Your task to perform on an android device: Play the last video I watched on Youtube Image 0: 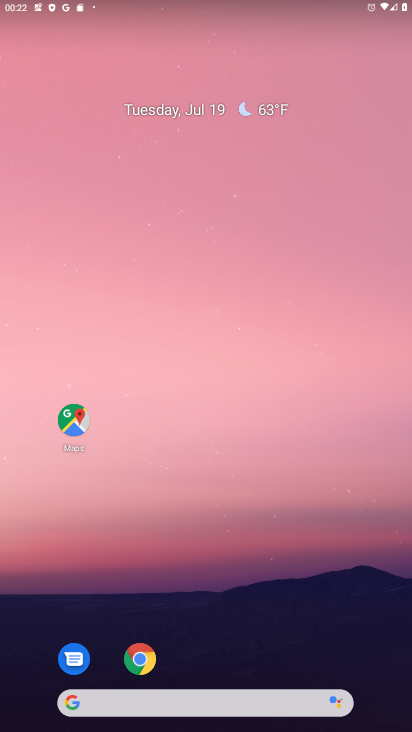
Step 0: press home button
Your task to perform on an android device: Play the last video I watched on Youtube Image 1: 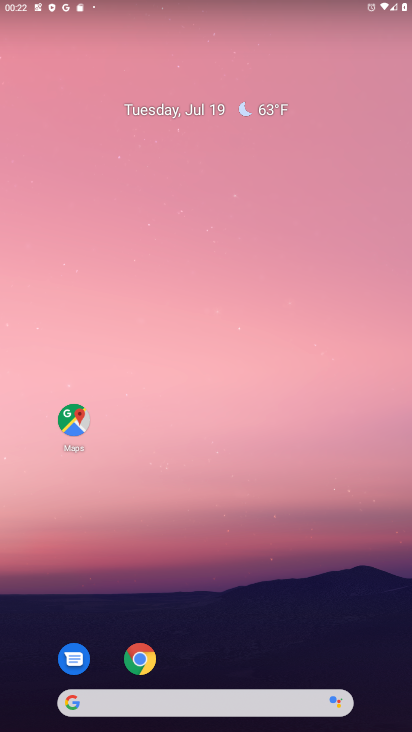
Step 1: drag from (328, 624) to (305, 1)
Your task to perform on an android device: Play the last video I watched on Youtube Image 2: 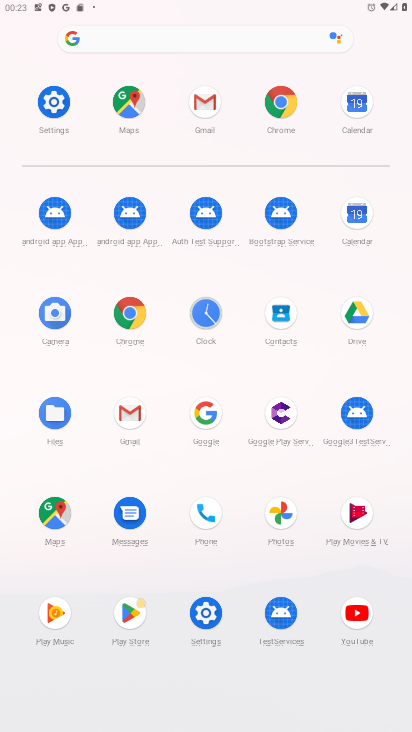
Step 2: click (341, 613)
Your task to perform on an android device: Play the last video I watched on Youtube Image 3: 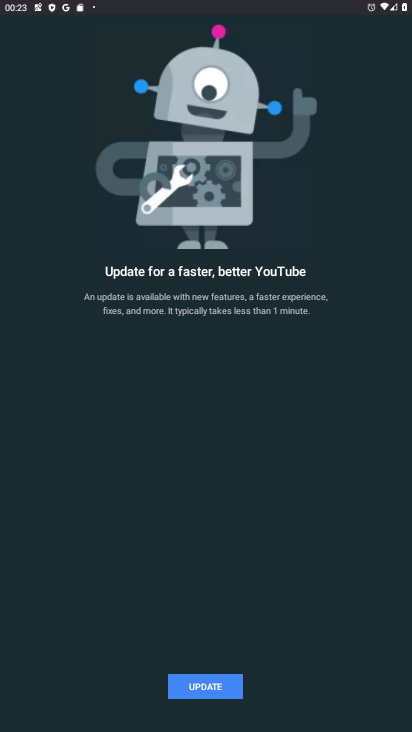
Step 3: click (223, 688)
Your task to perform on an android device: Play the last video I watched on Youtube Image 4: 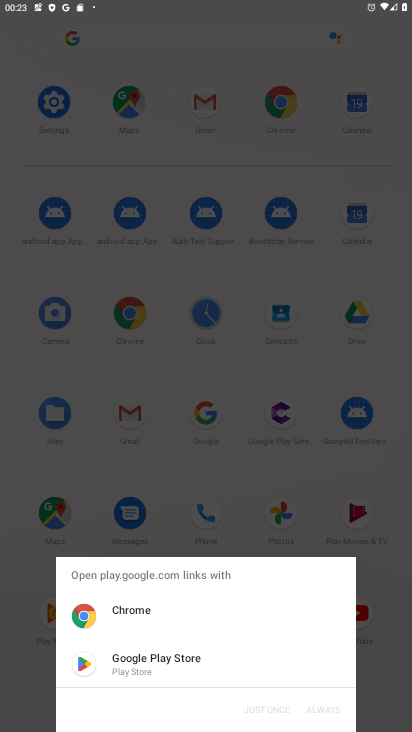
Step 4: click (196, 666)
Your task to perform on an android device: Play the last video I watched on Youtube Image 5: 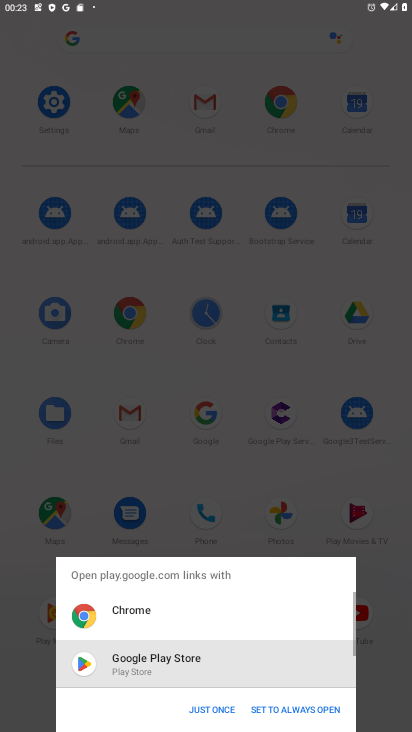
Step 5: click (217, 701)
Your task to perform on an android device: Play the last video I watched on Youtube Image 6: 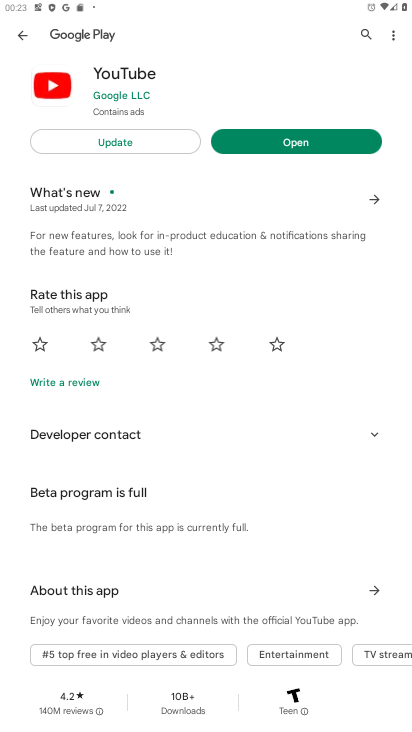
Step 6: click (126, 140)
Your task to perform on an android device: Play the last video I watched on Youtube Image 7: 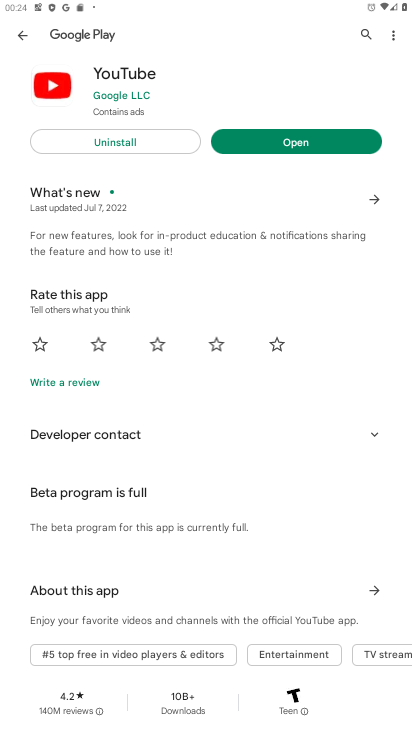
Step 7: click (253, 141)
Your task to perform on an android device: Play the last video I watched on Youtube Image 8: 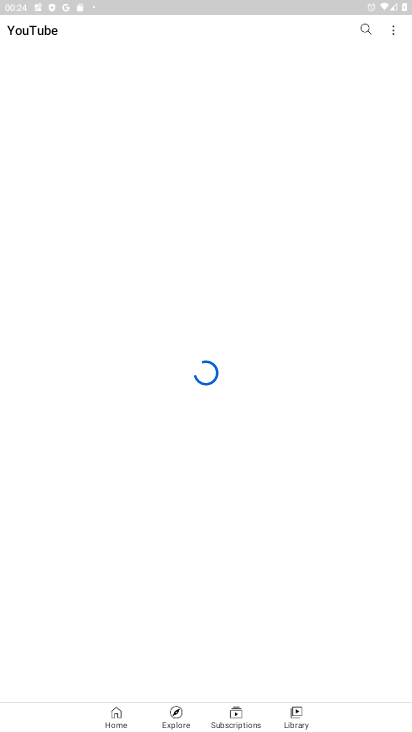
Step 8: click (294, 714)
Your task to perform on an android device: Play the last video I watched on Youtube Image 9: 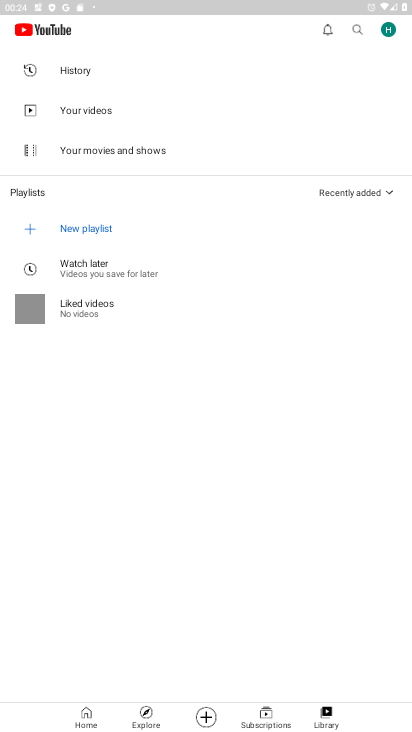
Step 9: task complete